Your task to perform on an android device: uninstall "Facebook Lite" Image 0: 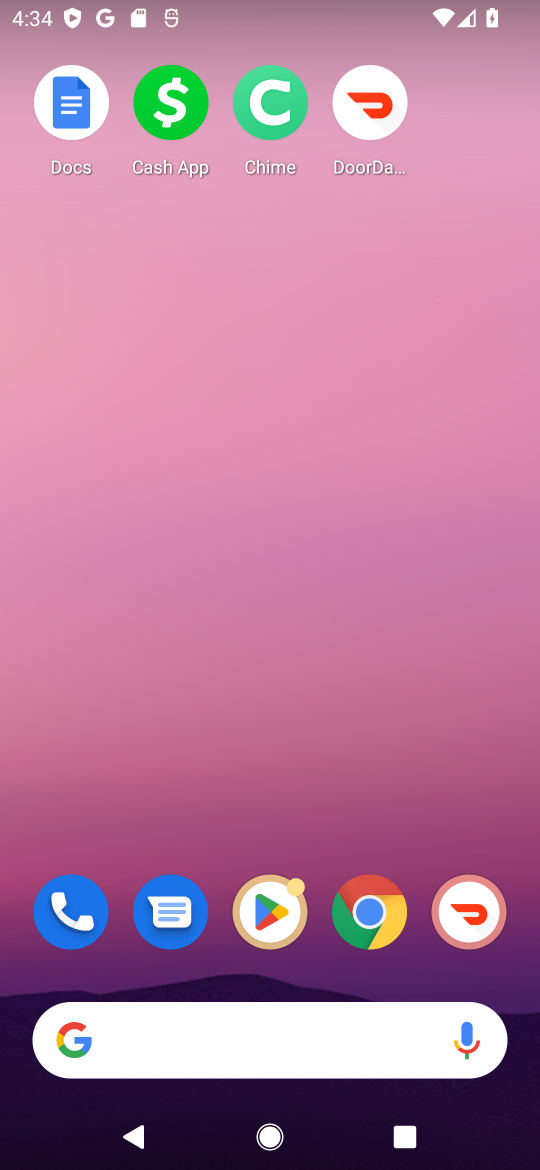
Step 0: drag from (215, 926) to (298, 245)
Your task to perform on an android device: uninstall "Facebook Lite" Image 1: 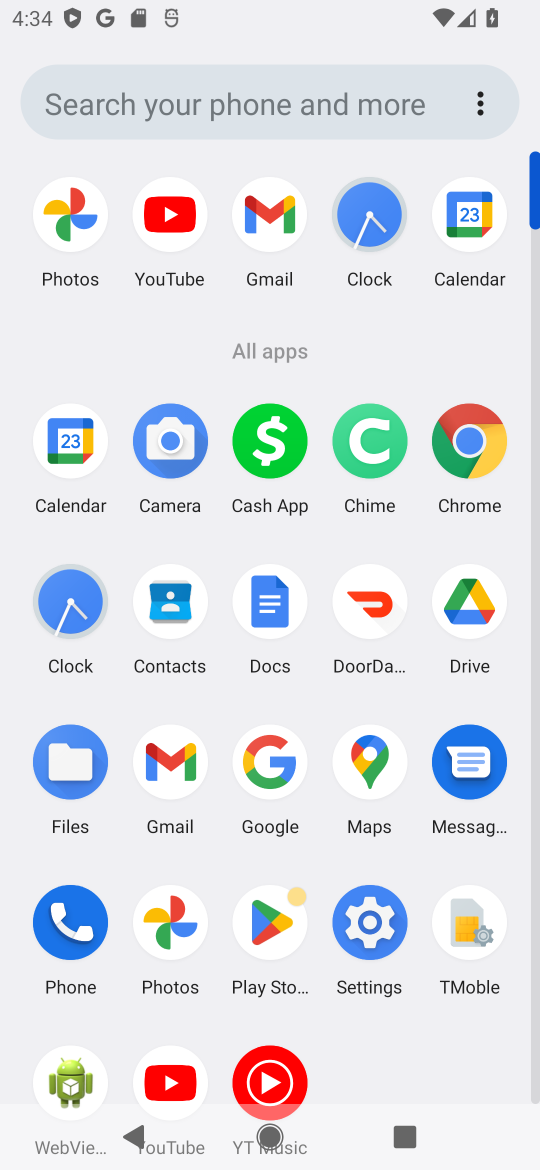
Step 1: click (279, 923)
Your task to perform on an android device: uninstall "Facebook Lite" Image 2: 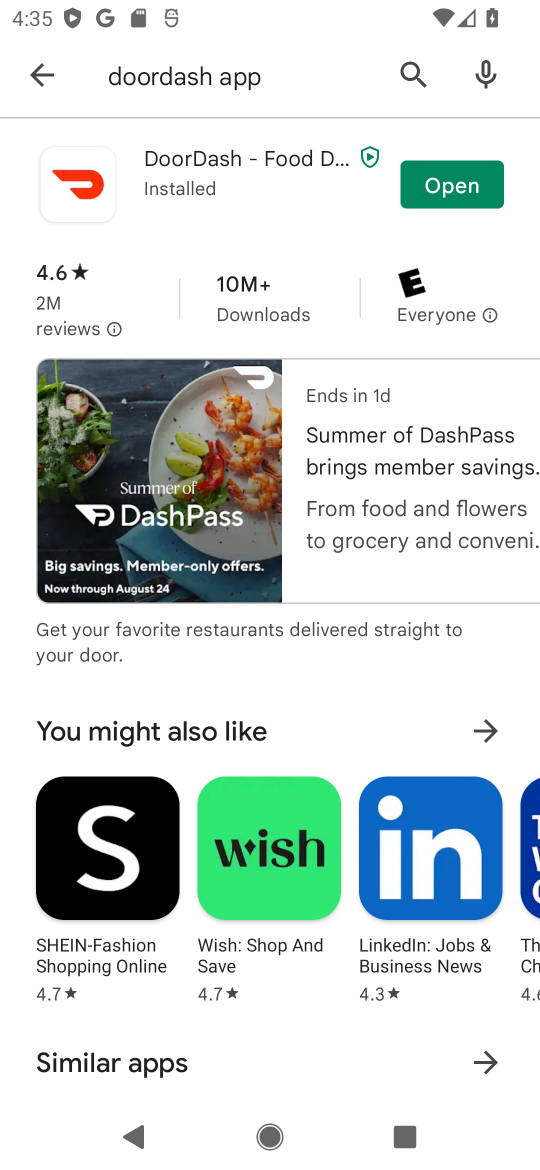
Step 2: click (43, 46)
Your task to perform on an android device: uninstall "Facebook Lite" Image 3: 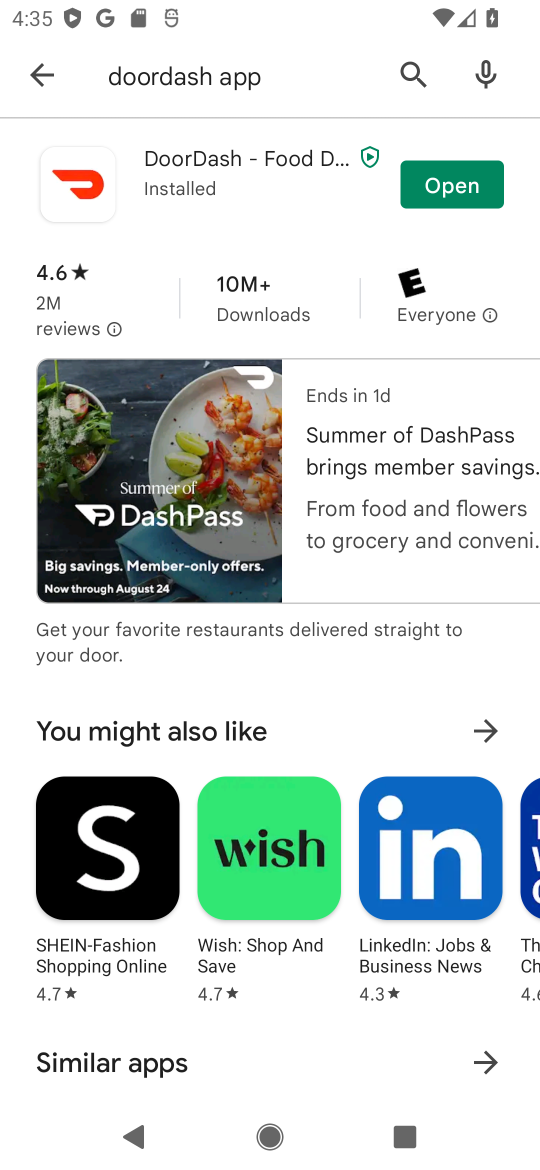
Step 3: click (38, 73)
Your task to perform on an android device: uninstall "Facebook Lite" Image 4: 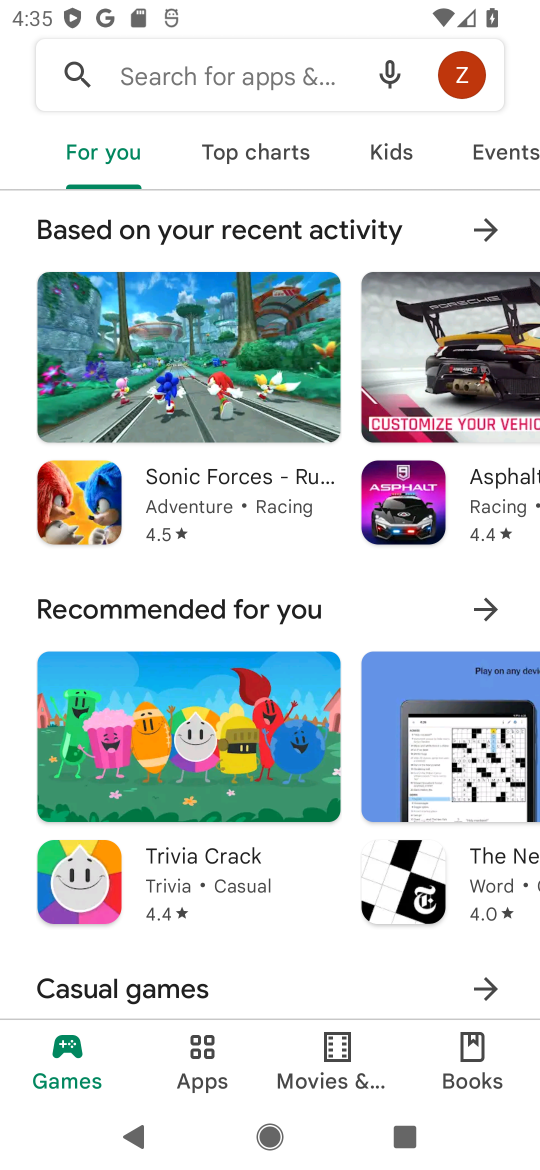
Step 4: click (117, 73)
Your task to perform on an android device: uninstall "Facebook Lite" Image 5: 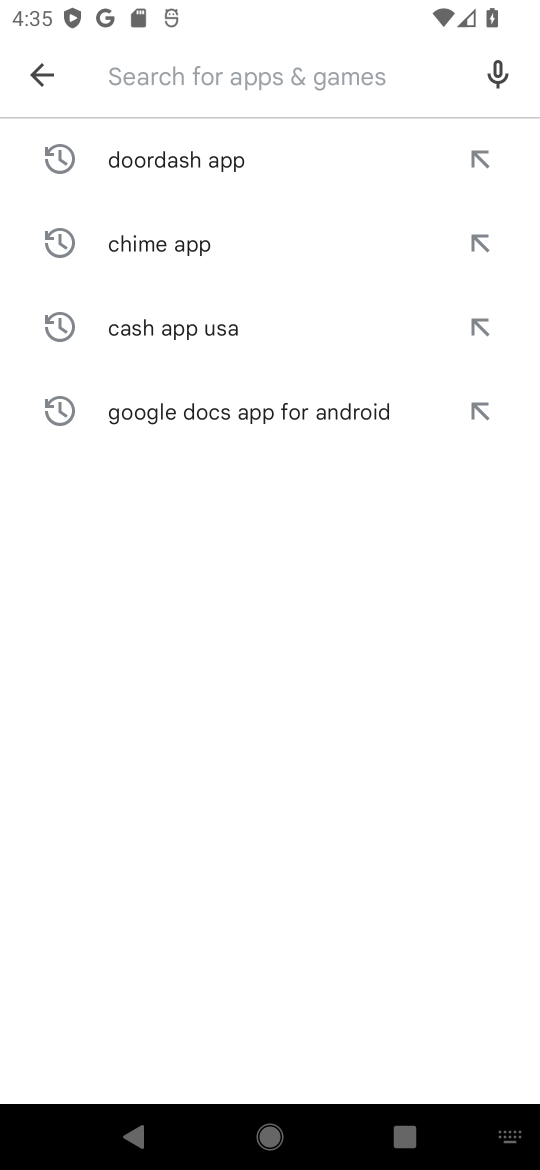
Step 5: type "facebook lite "
Your task to perform on an android device: uninstall "Facebook Lite" Image 6: 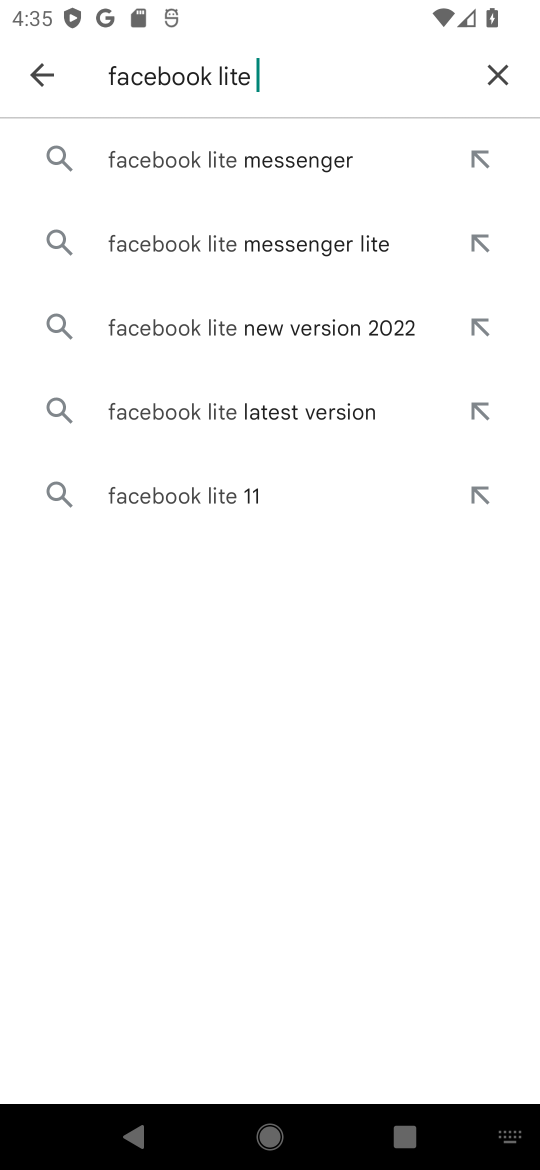
Step 6: click (185, 147)
Your task to perform on an android device: uninstall "Facebook Lite" Image 7: 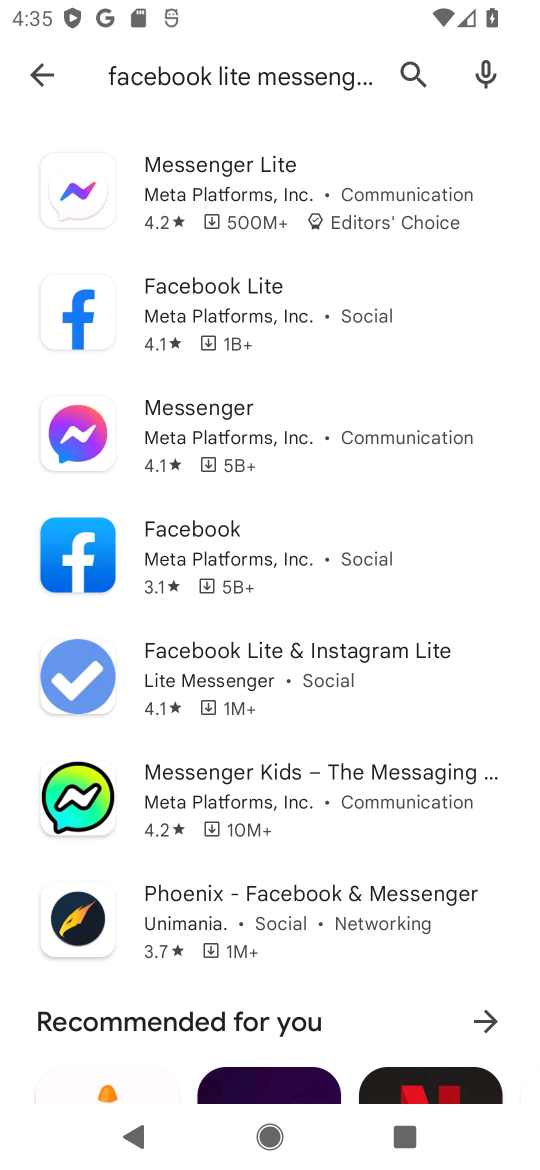
Step 7: click (152, 310)
Your task to perform on an android device: uninstall "Facebook Lite" Image 8: 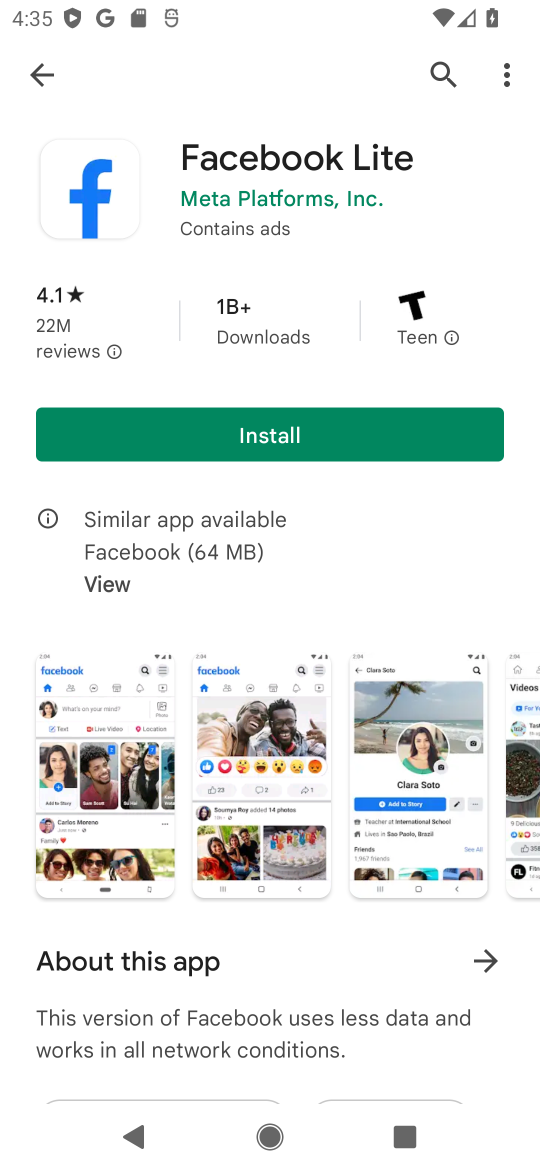
Step 8: task complete